Your task to perform on an android device: turn off sleep mode Image 0: 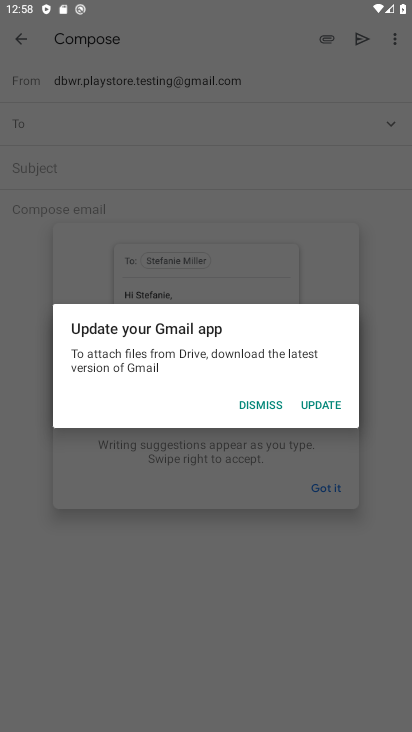
Step 0: press home button
Your task to perform on an android device: turn off sleep mode Image 1: 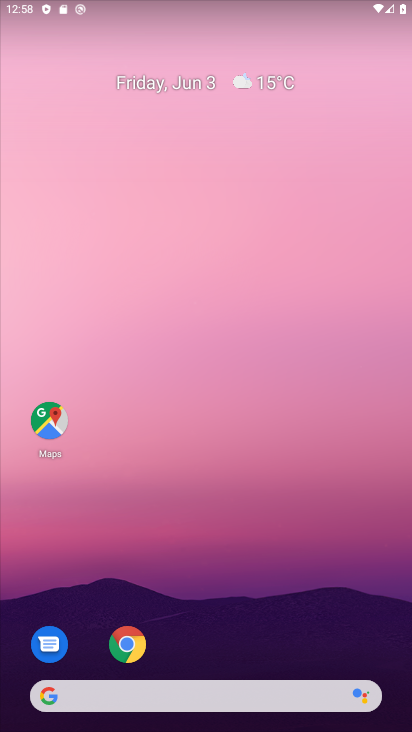
Step 1: drag from (219, 598) to (265, 0)
Your task to perform on an android device: turn off sleep mode Image 2: 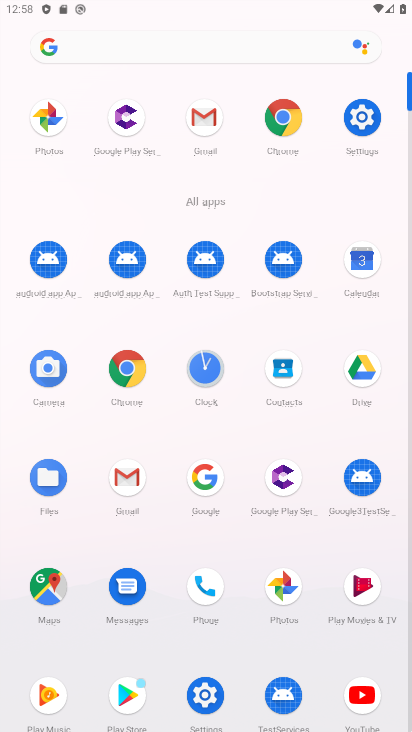
Step 2: click (365, 135)
Your task to perform on an android device: turn off sleep mode Image 3: 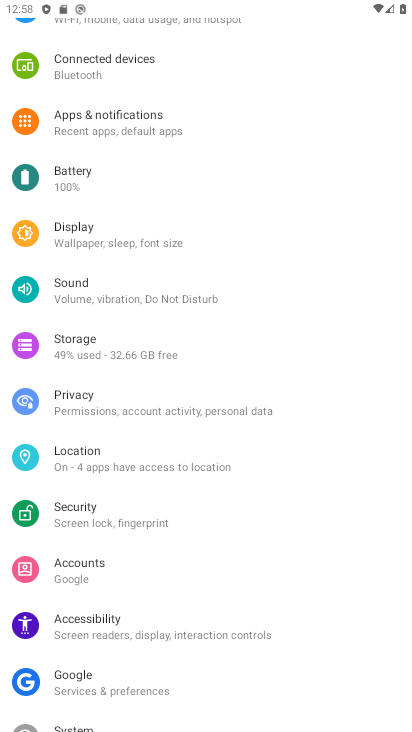
Step 3: drag from (197, 156) to (197, 493)
Your task to perform on an android device: turn off sleep mode Image 4: 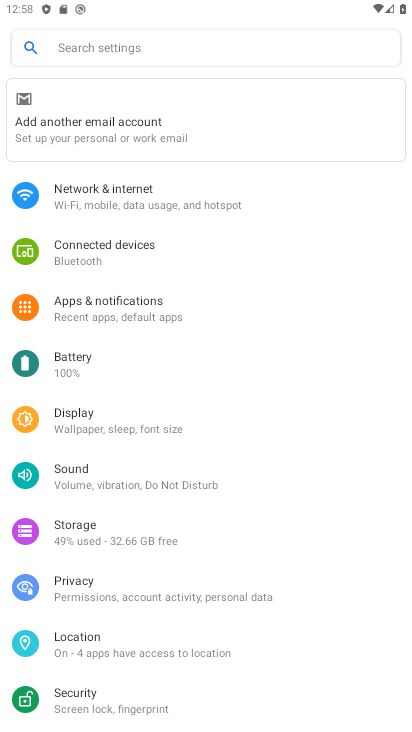
Step 4: drag from (197, 77) to (173, 450)
Your task to perform on an android device: turn off sleep mode Image 5: 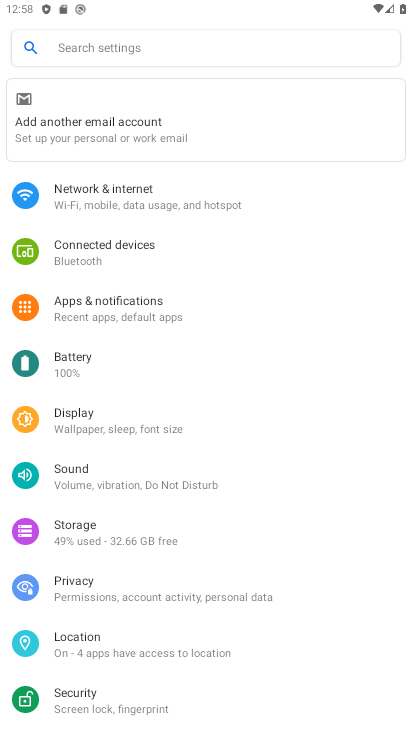
Step 5: click (161, 45)
Your task to perform on an android device: turn off sleep mode Image 6: 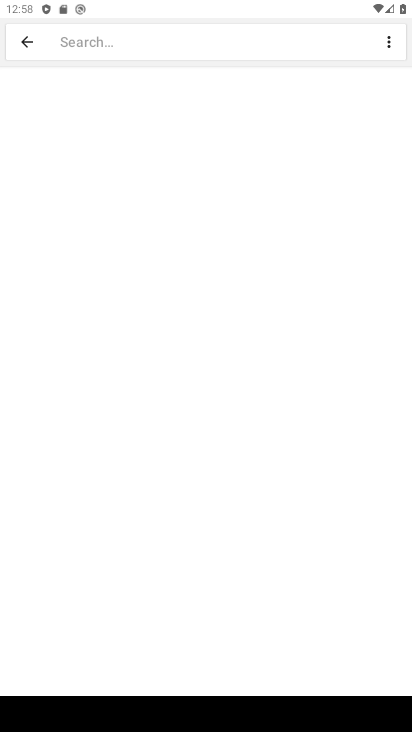
Step 6: type "sleep mode"
Your task to perform on an android device: turn off sleep mode Image 7: 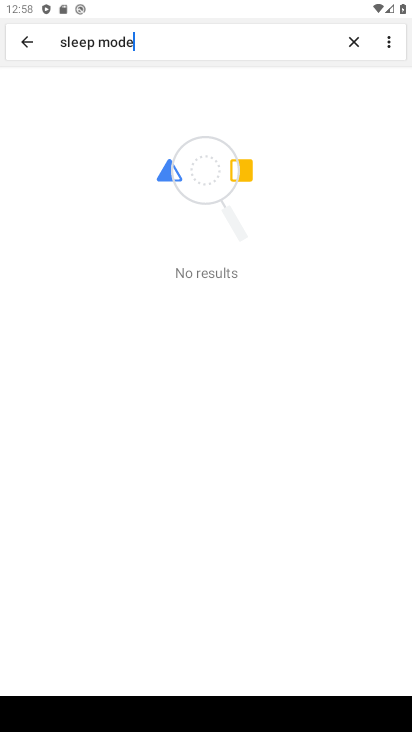
Step 7: task complete